Your task to perform on an android device: Open the web browser Image 0: 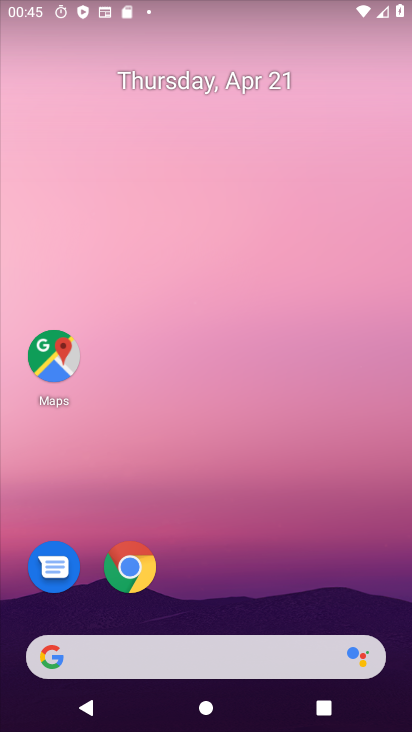
Step 0: drag from (251, 382) to (250, 285)
Your task to perform on an android device: Open the web browser Image 1: 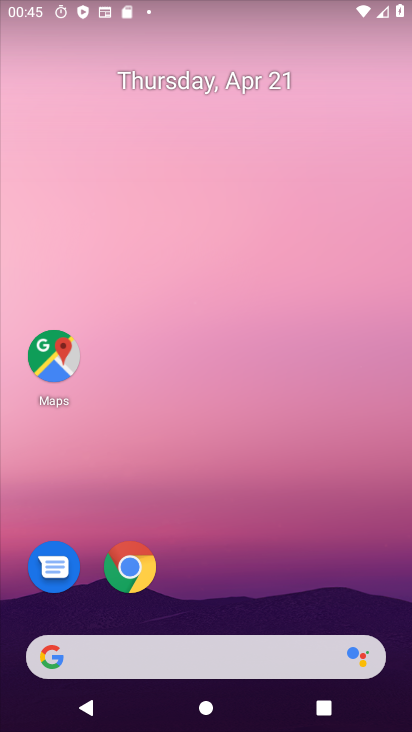
Step 1: drag from (227, 581) to (210, 179)
Your task to perform on an android device: Open the web browser Image 2: 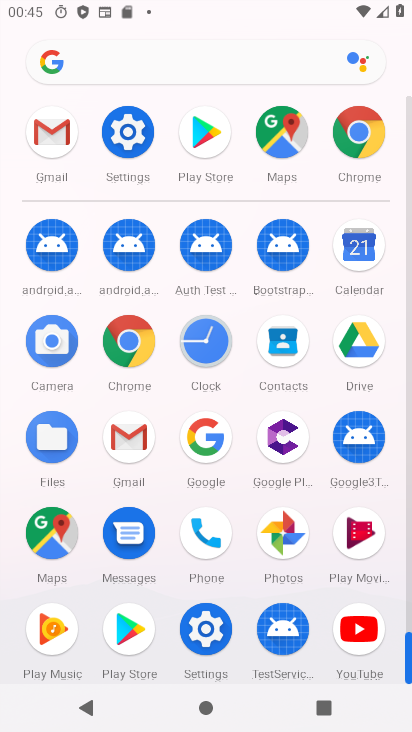
Step 2: click (125, 336)
Your task to perform on an android device: Open the web browser Image 3: 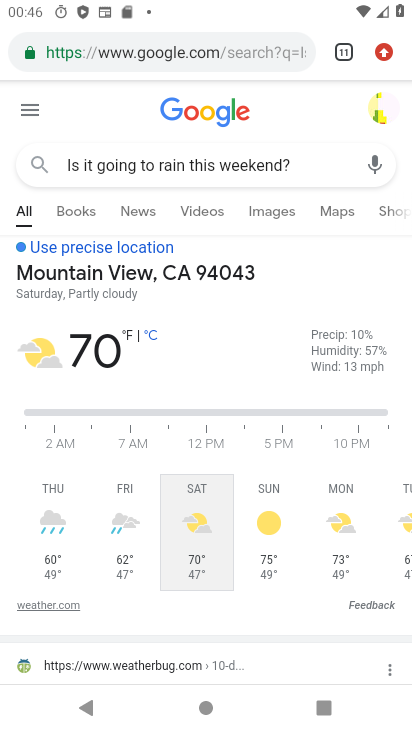
Step 3: task complete